Your task to perform on an android device: Go to display settings Image 0: 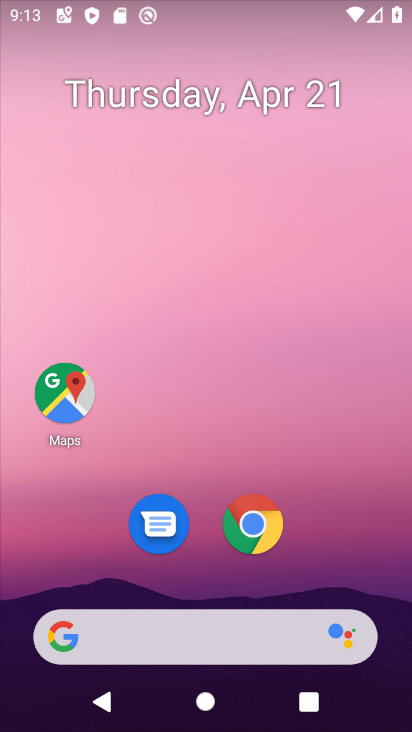
Step 0: drag from (351, 545) to (372, 100)
Your task to perform on an android device: Go to display settings Image 1: 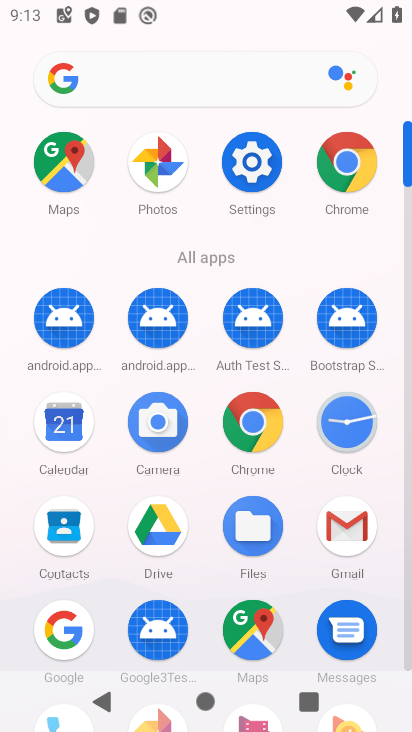
Step 1: click (258, 156)
Your task to perform on an android device: Go to display settings Image 2: 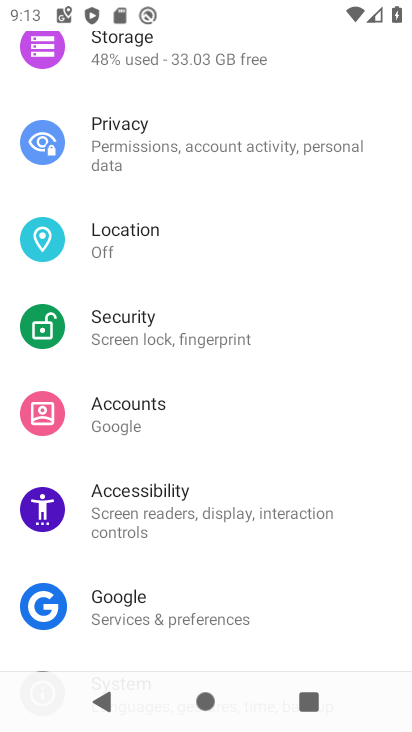
Step 2: drag from (262, 216) to (259, 572)
Your task to perform on an android device: Go to display settings Image 3: 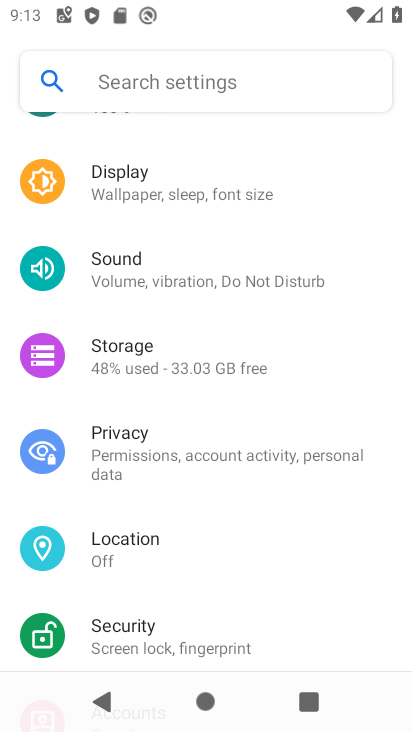
Step 3: click (229, 189)
Your task to perform on an android device: Go to display settings Image 4: 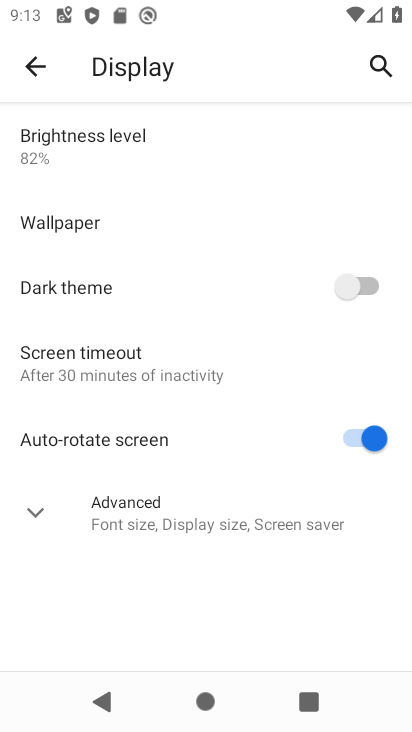
Step 4: task complete